Your task to perform on an android device: change notification settings in the gmail app Image 0: 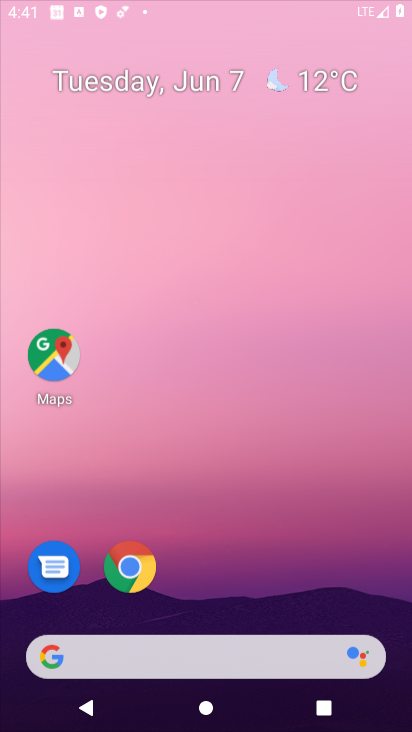
Step 0: press home button
Your task to perform on an android device: change notification settings in the gmail app Image 1: 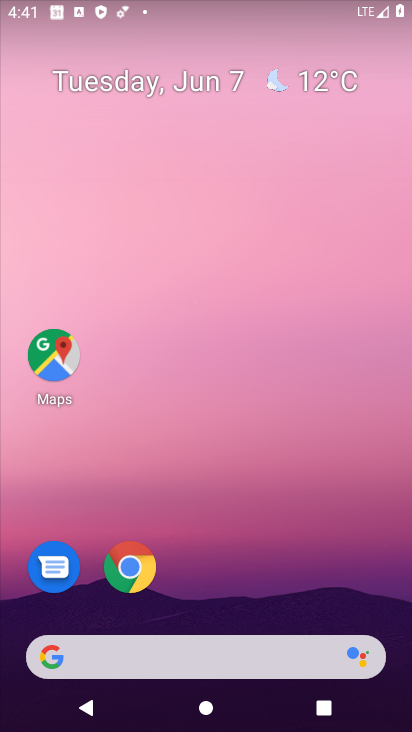
Step 1: drag from (310, 619) to (287, 40)
Your task to perform on an android device: change notification settings in the gmail app Image 2: 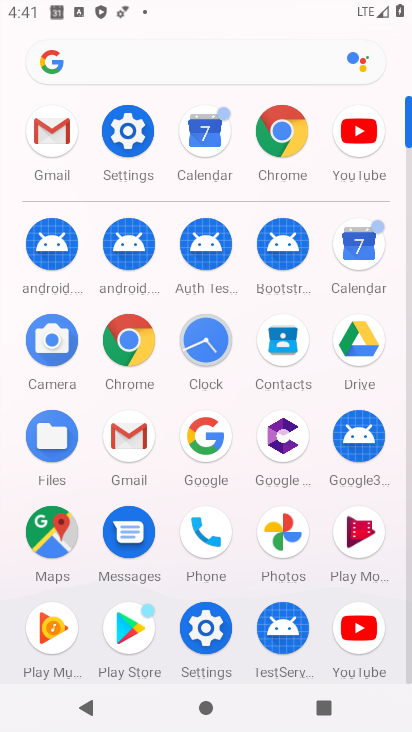
Step 2: click (143, 450)
Your task to perform on an android device: change notification settings in the gmail app Image 3: 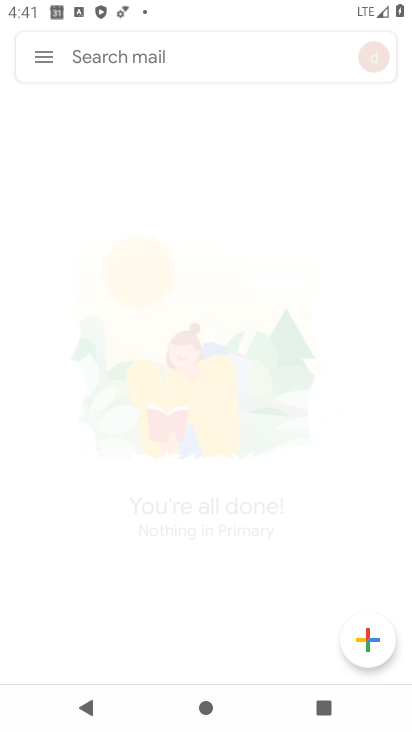
Step 3: click (39, 58)
Your task to perform on an android device: change notification settings in the gmail app Image 4: 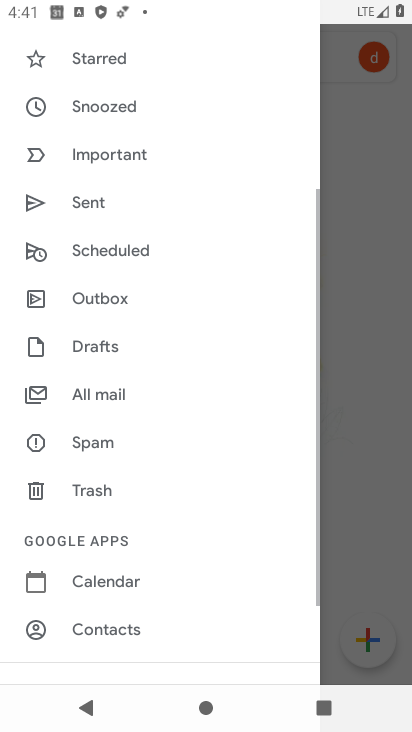
Step 4: drag from (157, 386) to (158, 292)
Your task to perform on an android device: change notification settings in the gmail app Image 5: 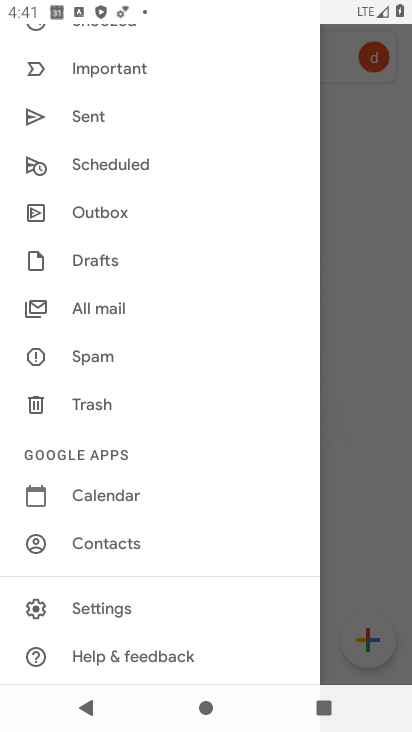
Step 5: click (138, 609)
Your task to perform on an android device: change notification settings in the gmail app Image 6: 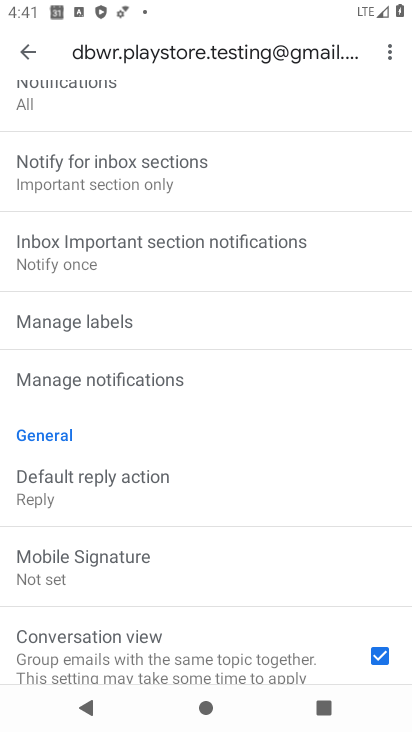
Step 6: click (161, 373)
Your task to perform on an android device: change notification settings in the gmail app Image 7: 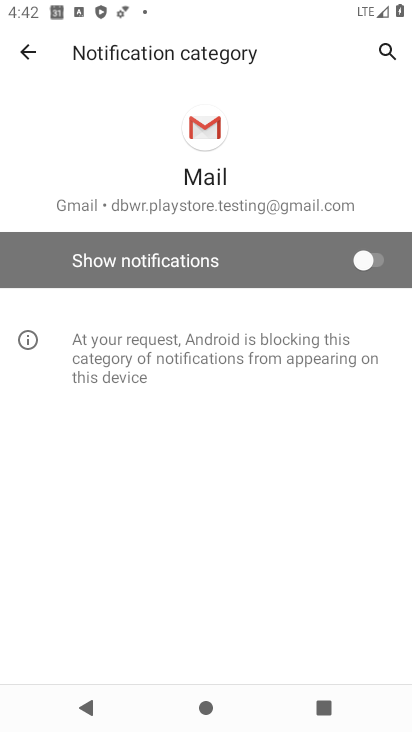
Step 7: click (374, 267)
Your task to perform on an android device: change notification settings in the gmail app Image 8: 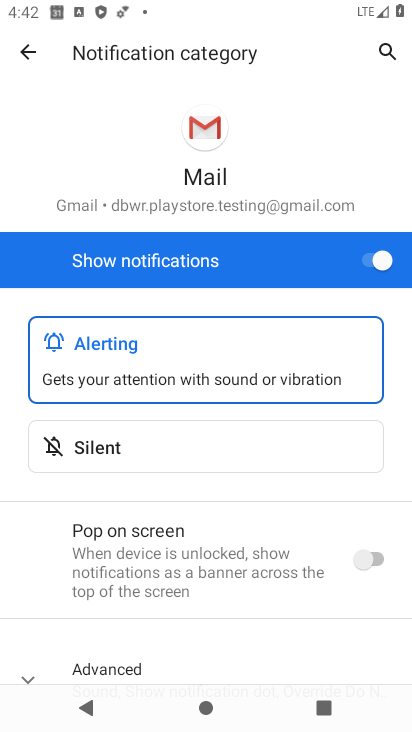
Step 8: task complete